Your task to perform on an android device: check google app version Image 0: 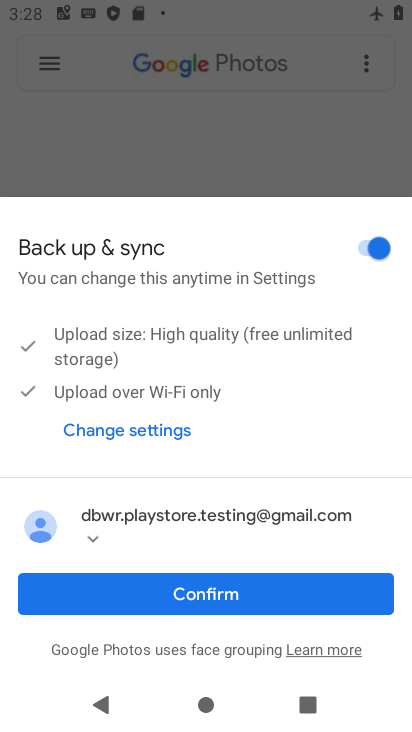
Step 0: press home button
Your task to perform on an android device: check google app version Image 1: 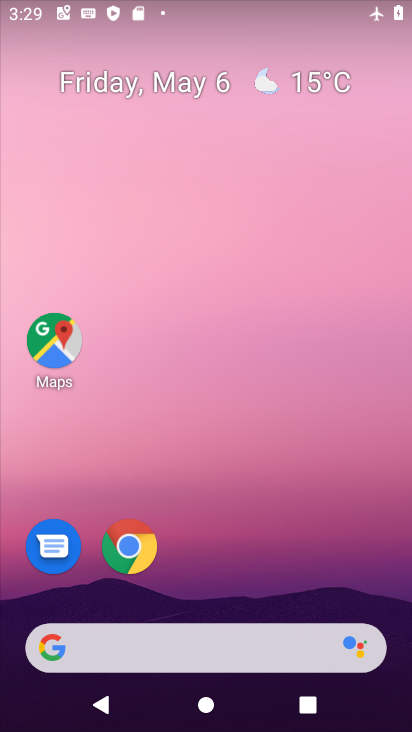
Step 1: click (150, 558)
Your task to perform on an android device: check google app version Image 2: 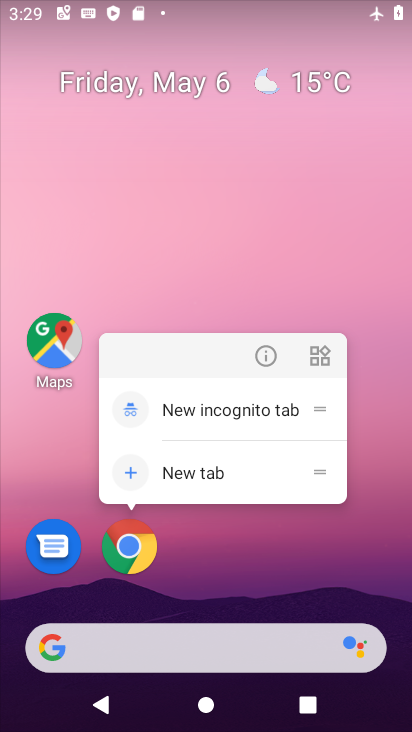
Step 2: click (266, 357)
Your task to perform on an android device: check google app version Image 3: 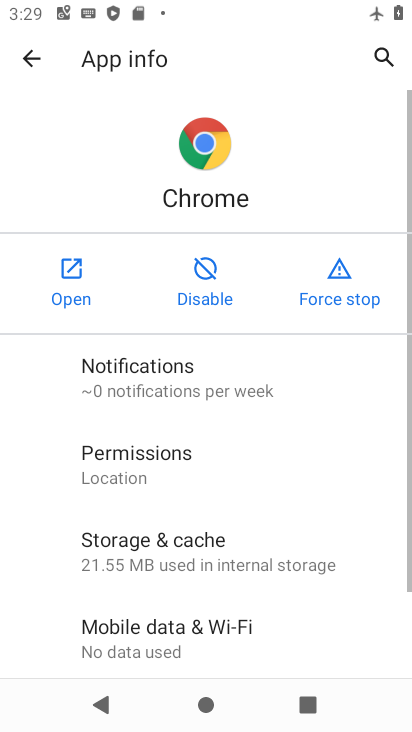
Step 3: drag from (289, 628) to (285, 142)
Your task to perform on an android device: check google app version Image 4: 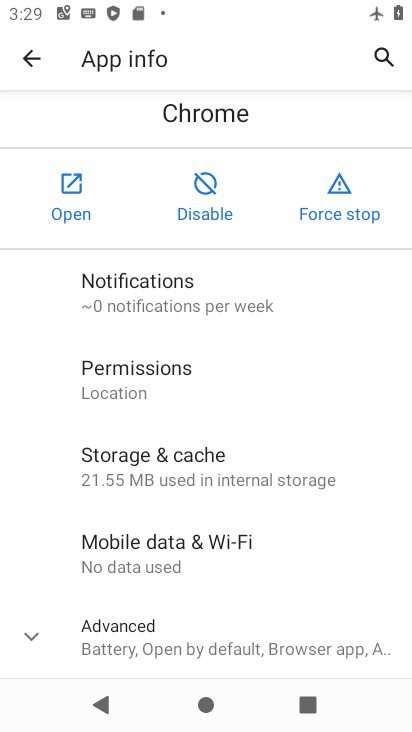
Step 4: click (259, 630)
Your task to perform on an android device: check google app version Image 5: 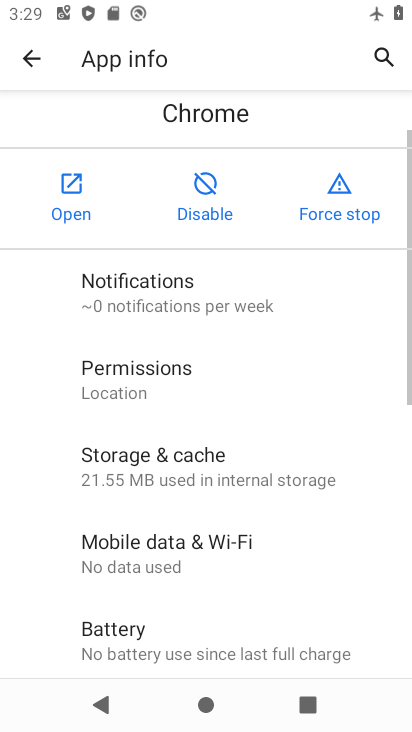
Step 5: task complete